Your task to perform on an android device: Open privacy settings Image 0: 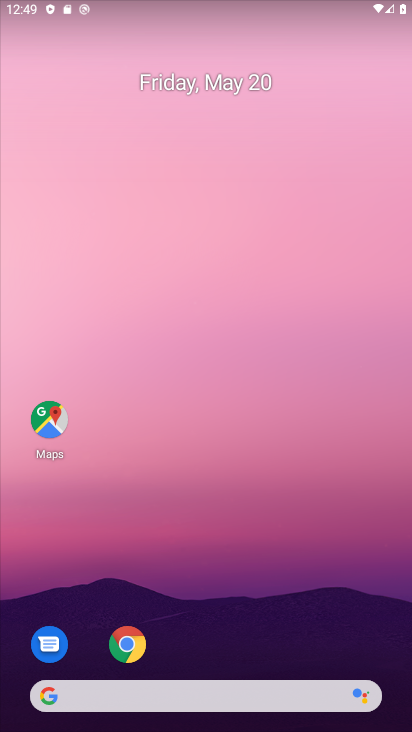
Step 0: drag from (302, 627) to (254, 3)
Your task to perform on an android device: Open privacy settings Image 1: 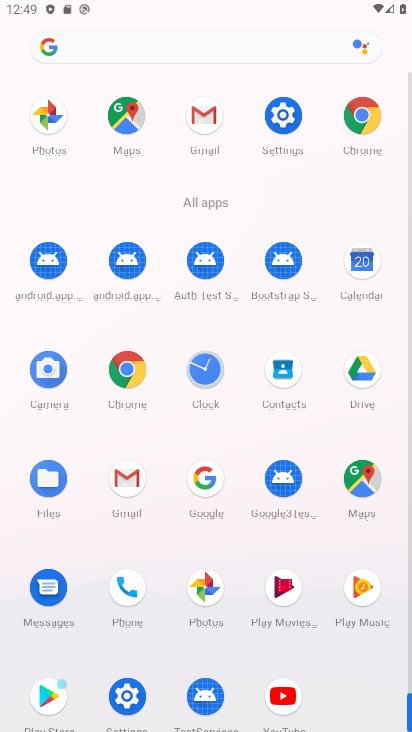
Step 1: click (293, 118)
Your task to perform on an android device: Open privacy settings Image 2: 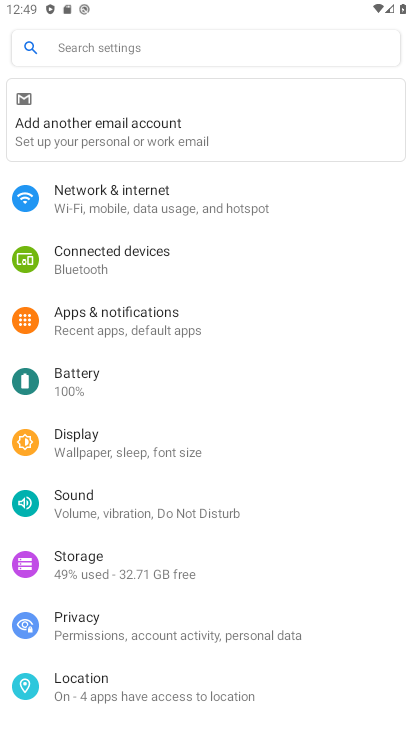
Step 2: click (122, 618)
Your task to perform on an android device: Open privacy settings Image 3: 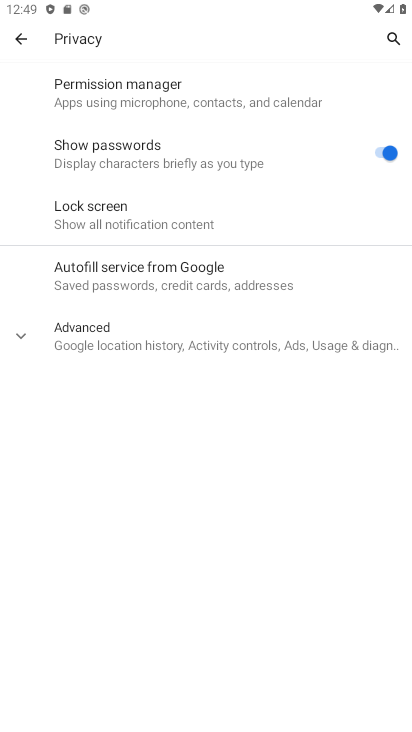
Step 3: task complete